Your task to perform on an android device: What is the news today? Image 0: 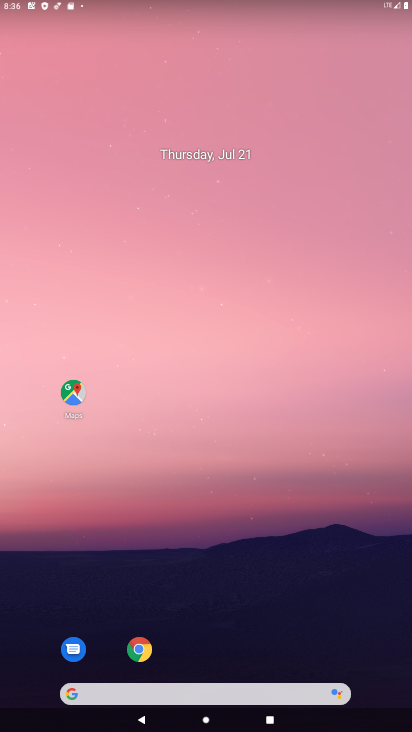
Step 0: drag from (189, 623) to (219, 7)
Your task to perform on an android device: What is the news today? Image 1: 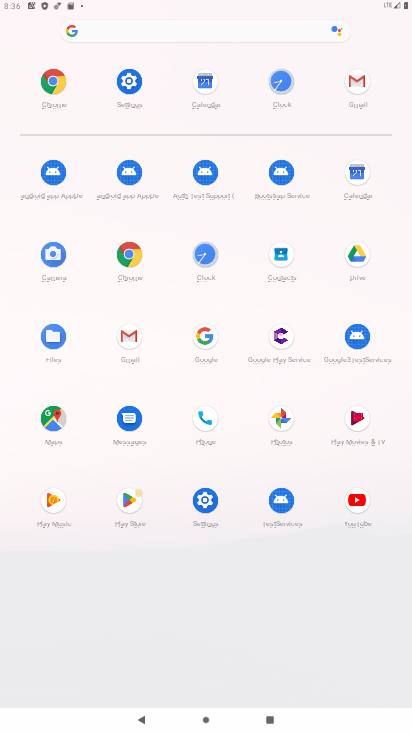
Step 1: click (219, 33)
Your task to perform on an android device: What is the news today? Image 2: 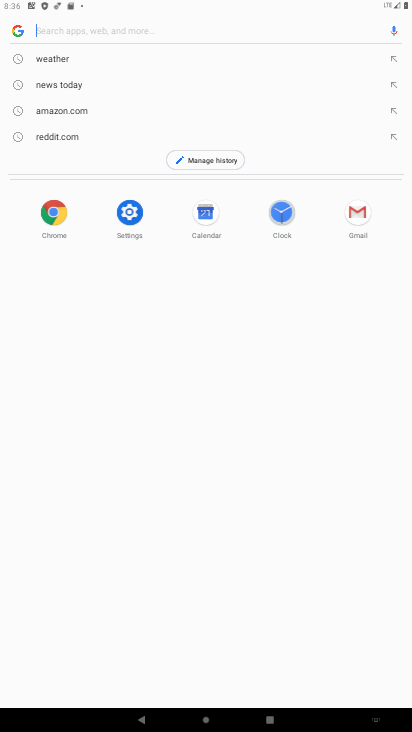
Step 2: type "news todays"
Your task to perform on an android device: What is the news today? Image 3: 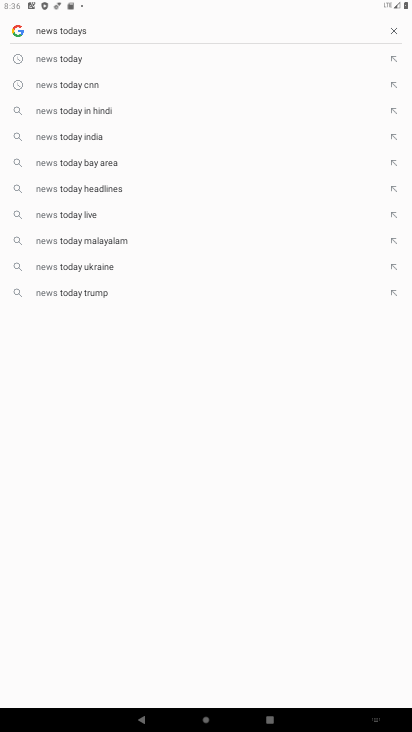
Step 3: click (53, 59)
Your task to perform on an android device: What is the news today? Image 4: 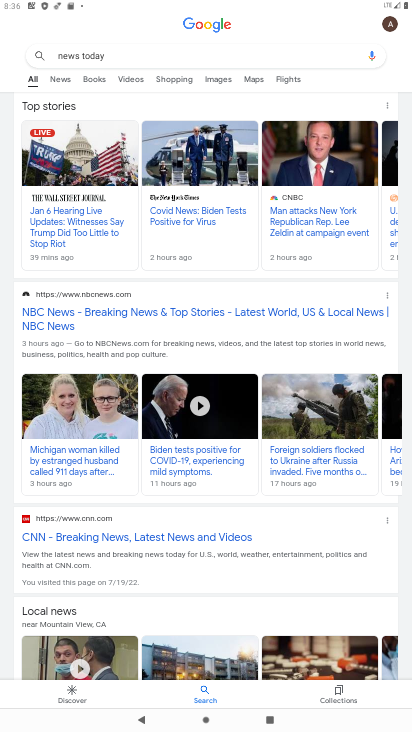
Step 4: task complete